Your task to perform on an android device: check google app version Image 0: 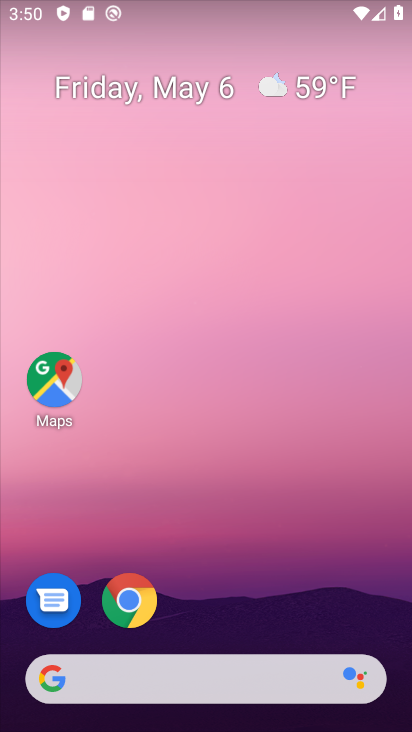
Step 0: click (40, 677)
Your task to perform on an android device: check google app version Image 1: 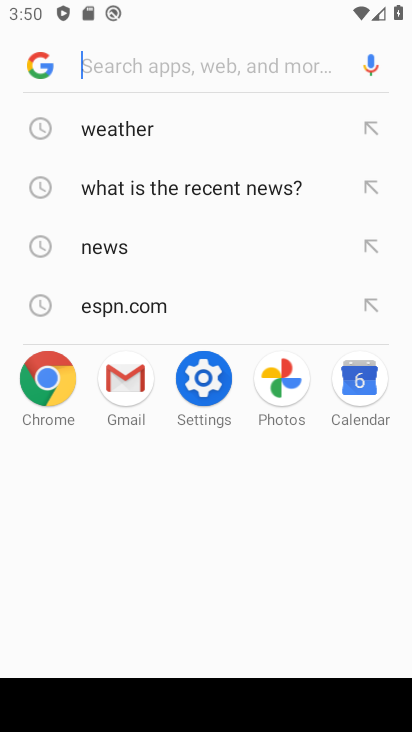
Step 1: click (51, 70)
Your task to perform on an android device: check google app version Image 2: 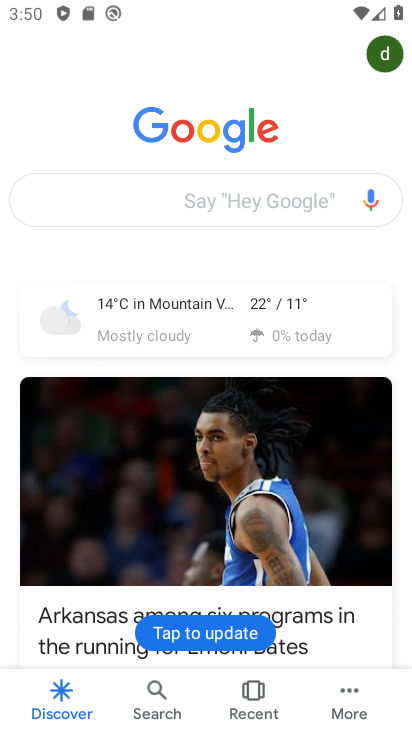
Step 2: click (396, 62)
Your task to perform on an android device: check google app version Image 3: 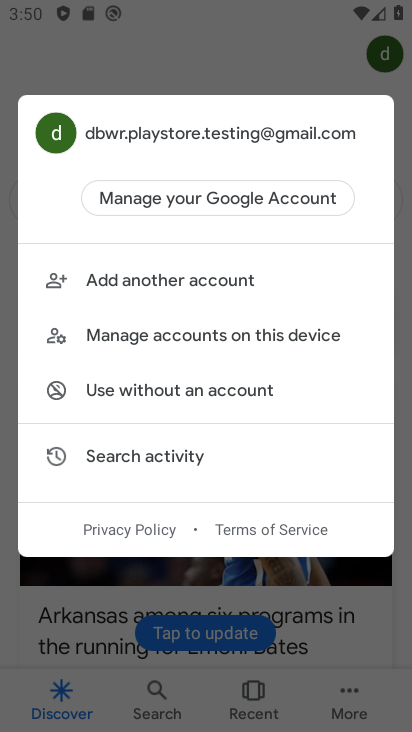
Step 3: click (339, 58)
Your task to perform on an android device: check google app version Image 4: 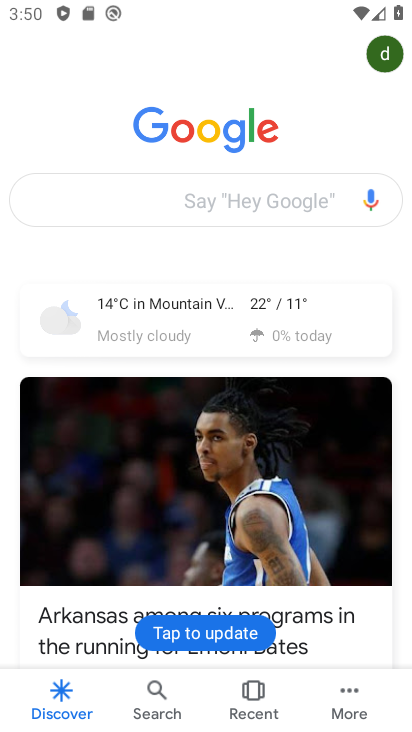
Step 4: click (344, 687)
Your task to perform on an android device: check google app version Image 5: 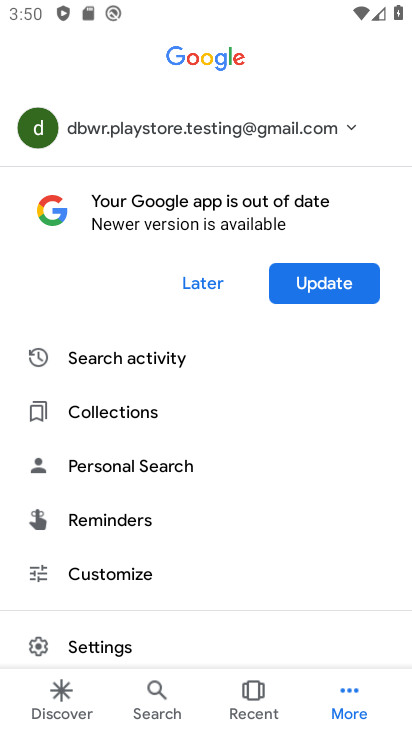
Step 5: drag from (138, 586) to (140, 338)
Your task to perform on an android device: check google app version Image 6: 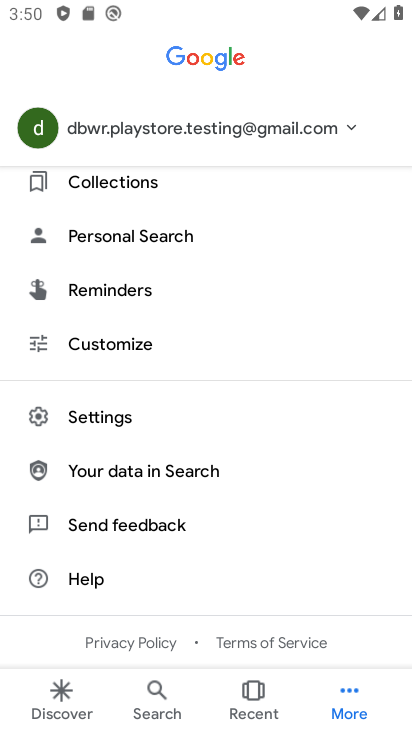
Step 6: click (121, 441)
Your task to perform on an android device: check google app version Image 7: 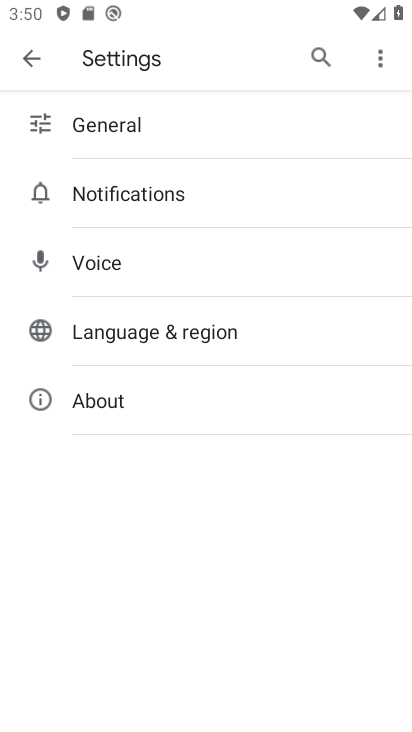
Step 7: click (106, 410)
Your task to perform on an android device: check google app version Image 8: 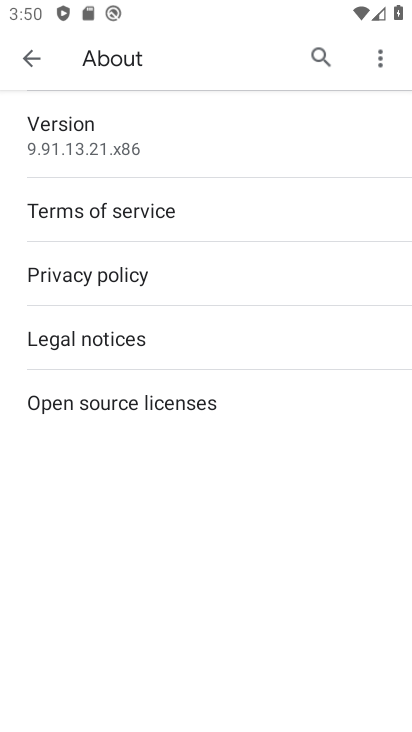
Step 8: click (120, 156)
Your task to perform on an android device: check google app version Image 9: 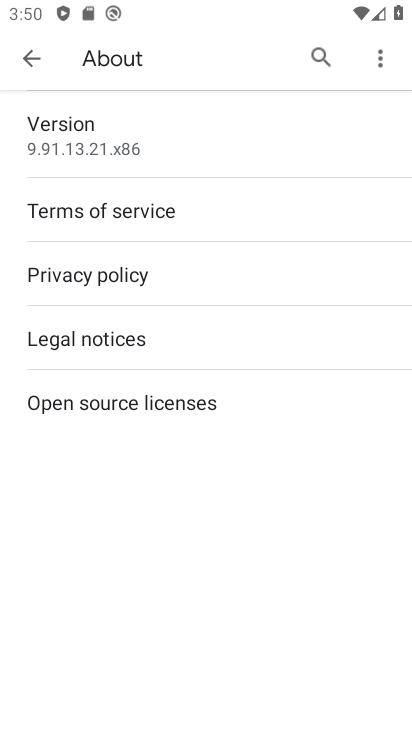
Step 9: task complete